Your task to perform on an android device: clear history in the chrome app Image 0: 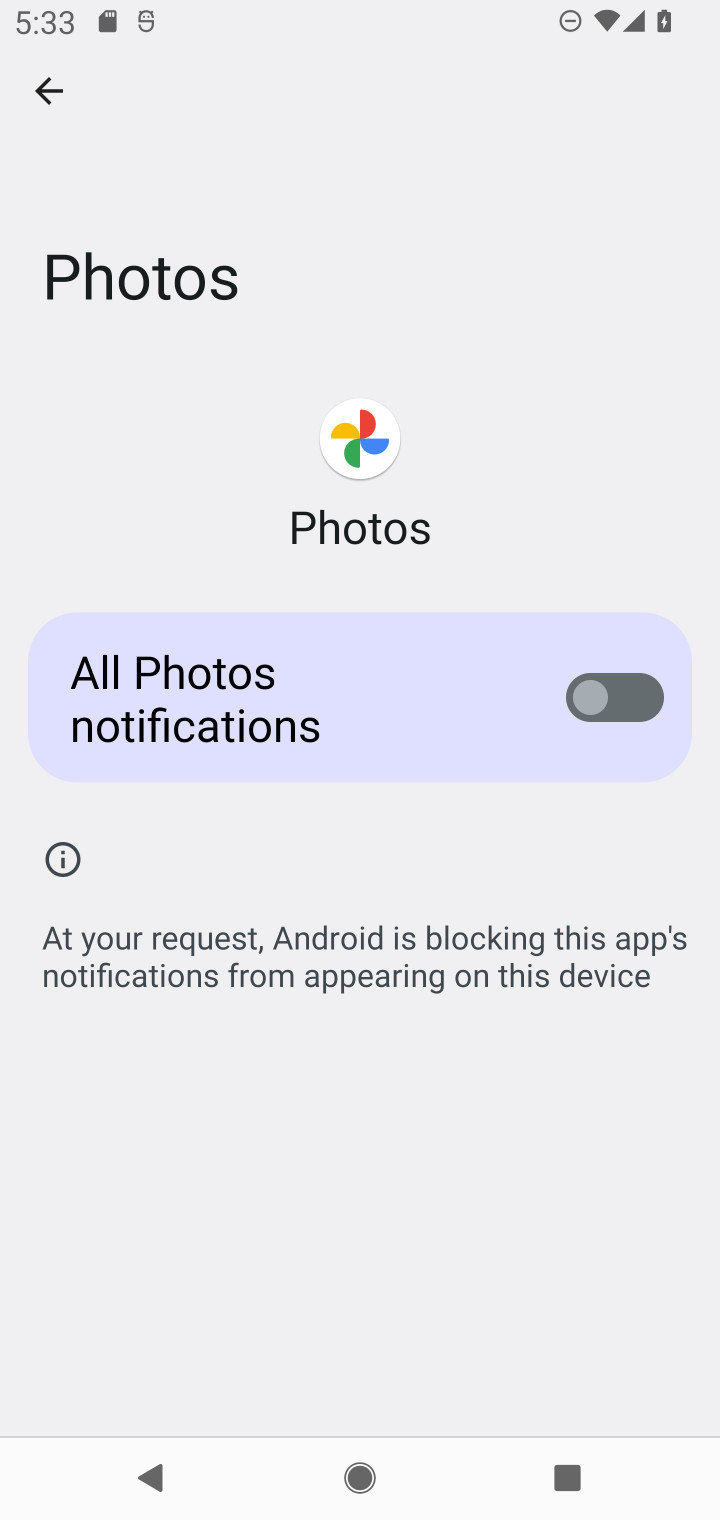
Step 0: press home button
Your task to perform on an android device: clear history in the chrome app Image 1: 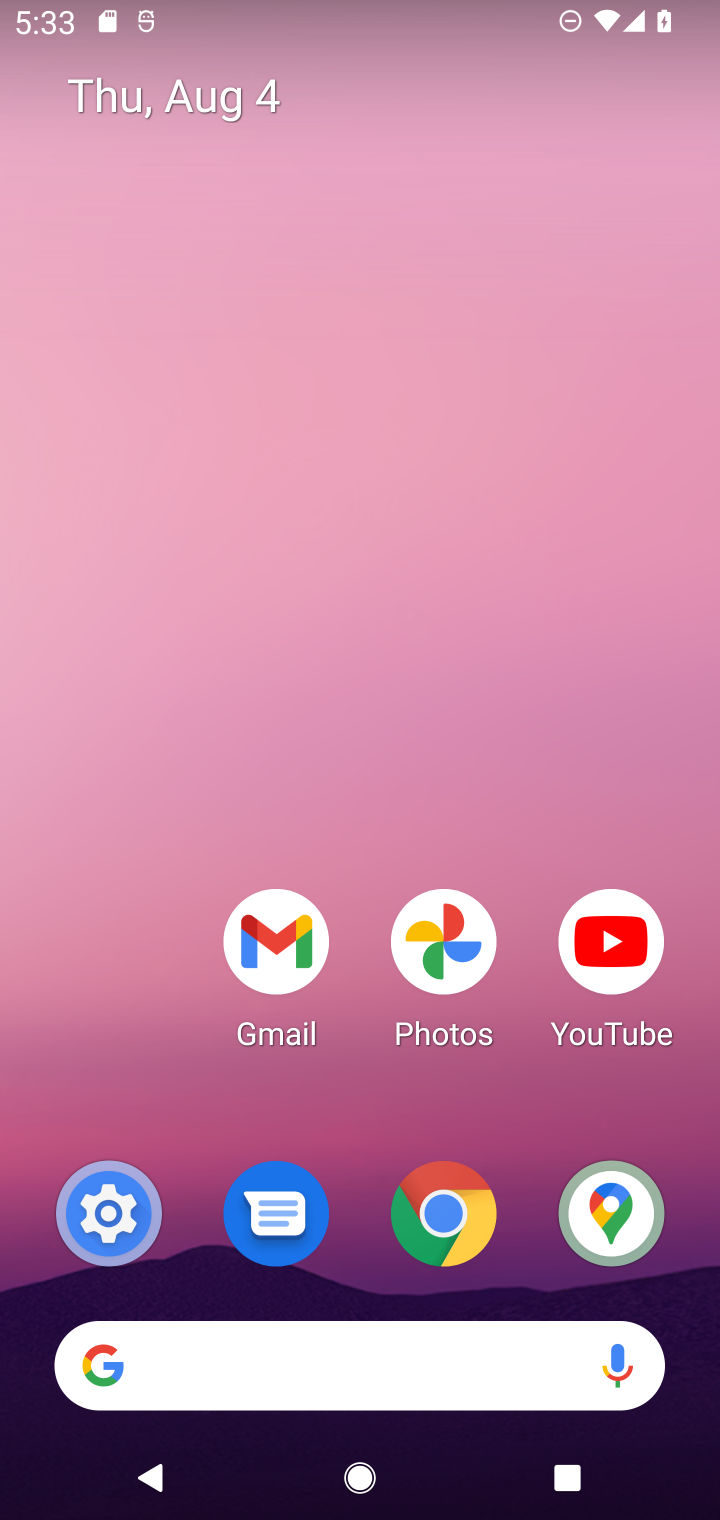
Step 1: drag from (153, 1077) to (173, 345)
Your task to perform on an android device: clear history in the chrome app Image 2: 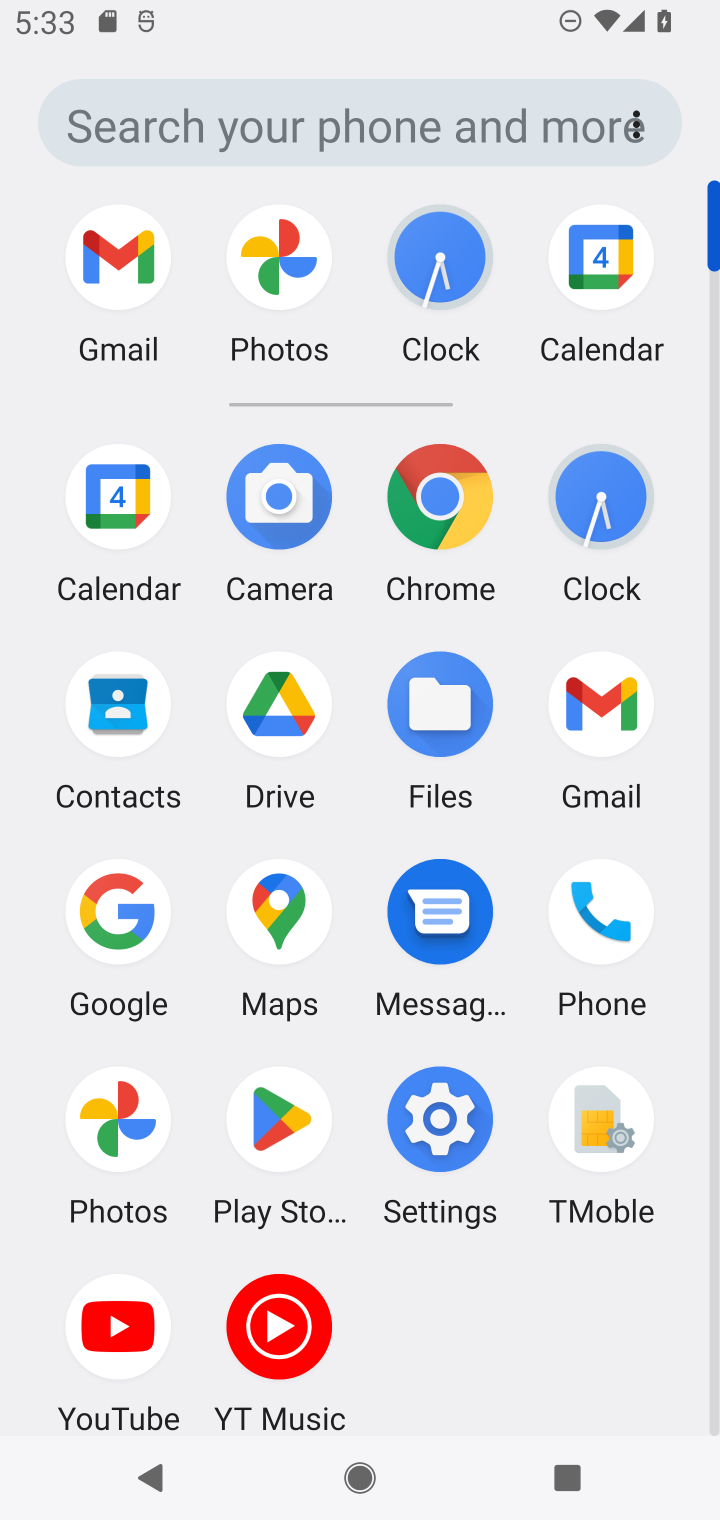
Step 2: click (435, 494)
Your task to perform on an android device: clear history in the chrome app Image 3: 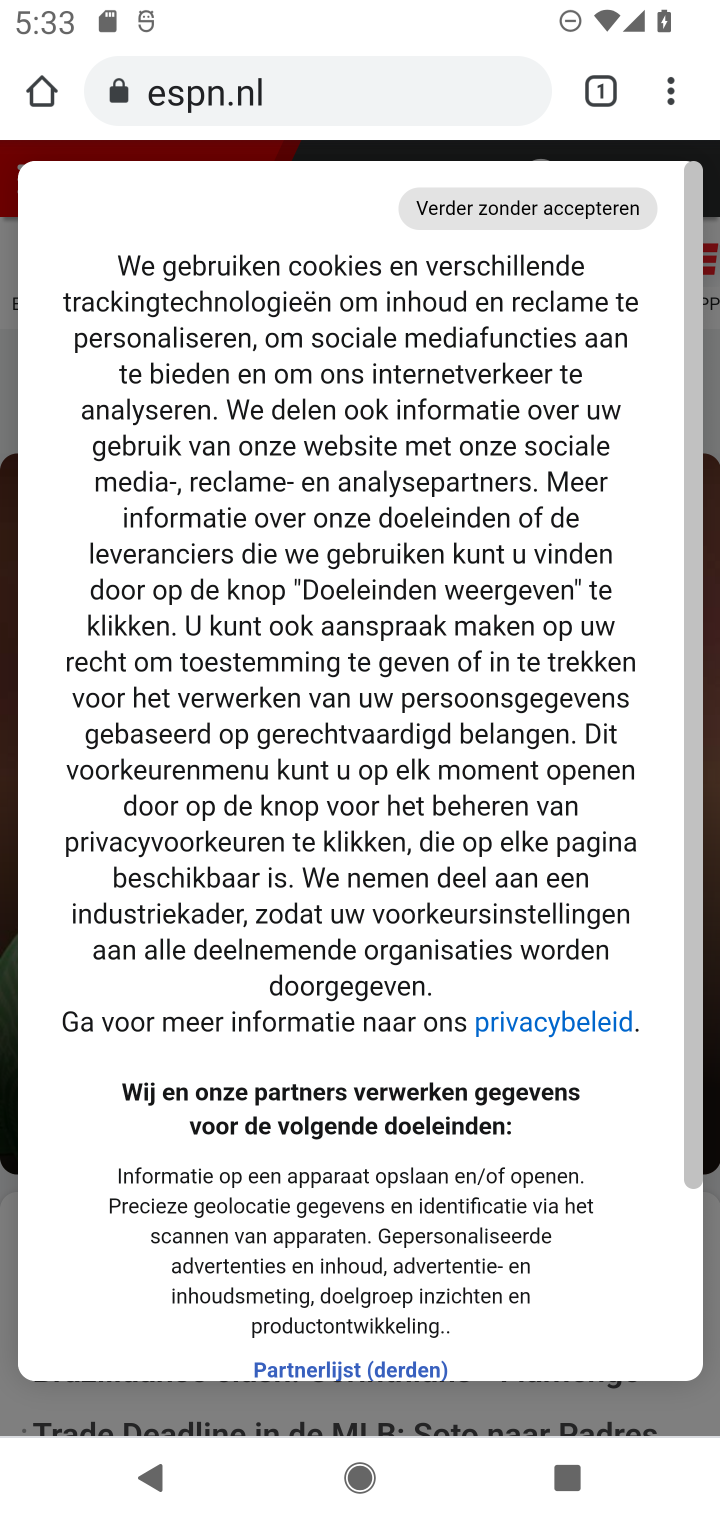
Step 3: click (670, 89)
Your task to perform on an android device: clear history in the chrome app Image 4: 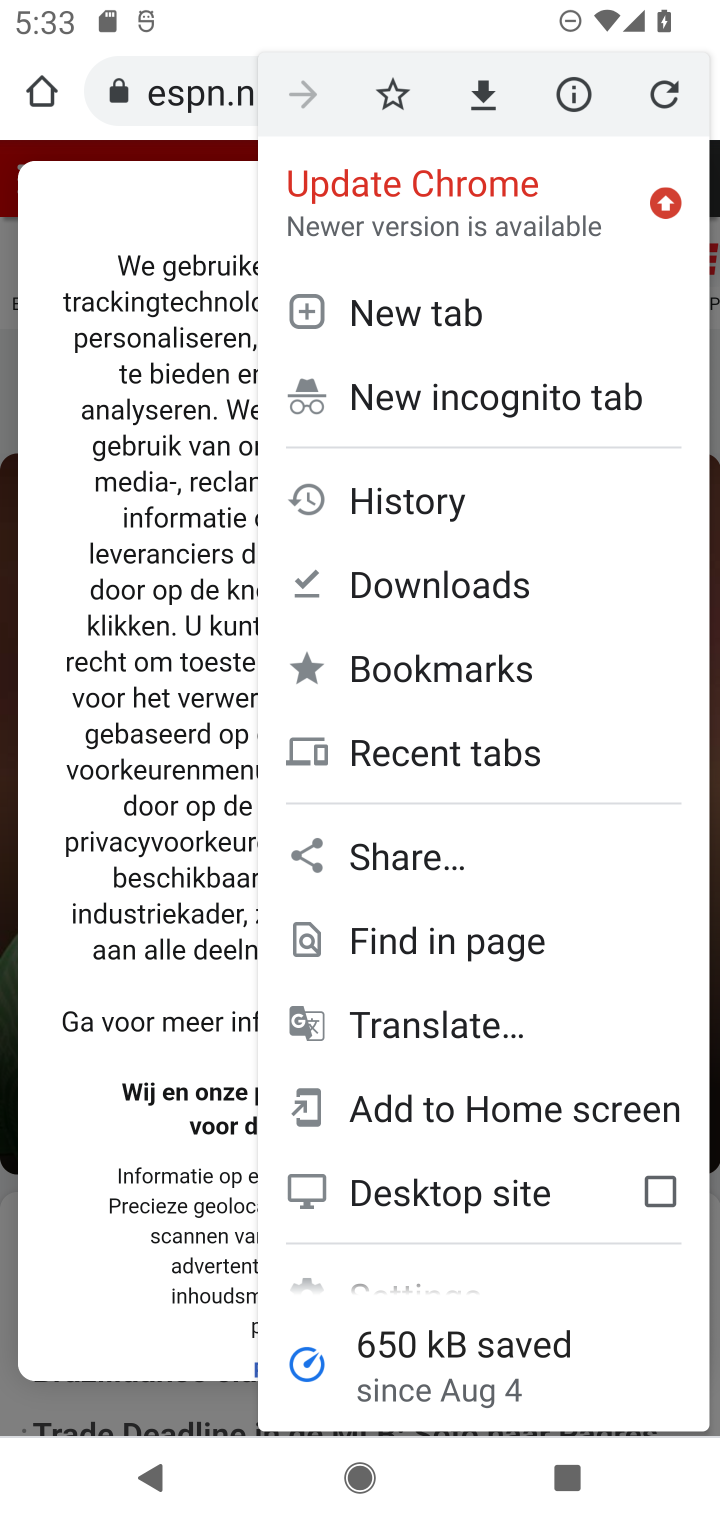
Step 4: drag from (544, 1185) to (550, 866)
Your task to perform on an android device: clear history in the chrome app Image 5: 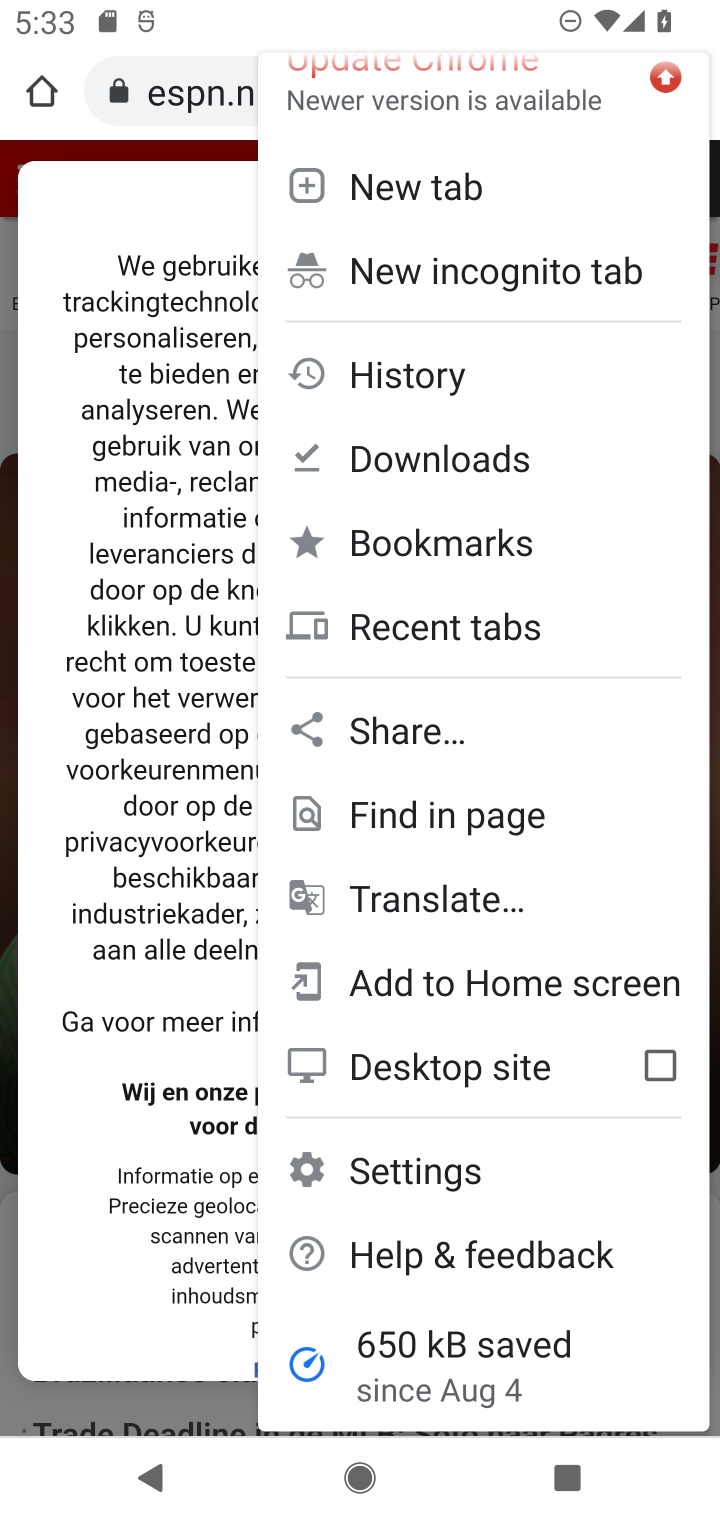
Step 5: click (519, 1157)
Your task to perform on an android device: clear history in the chrome app Image 6: 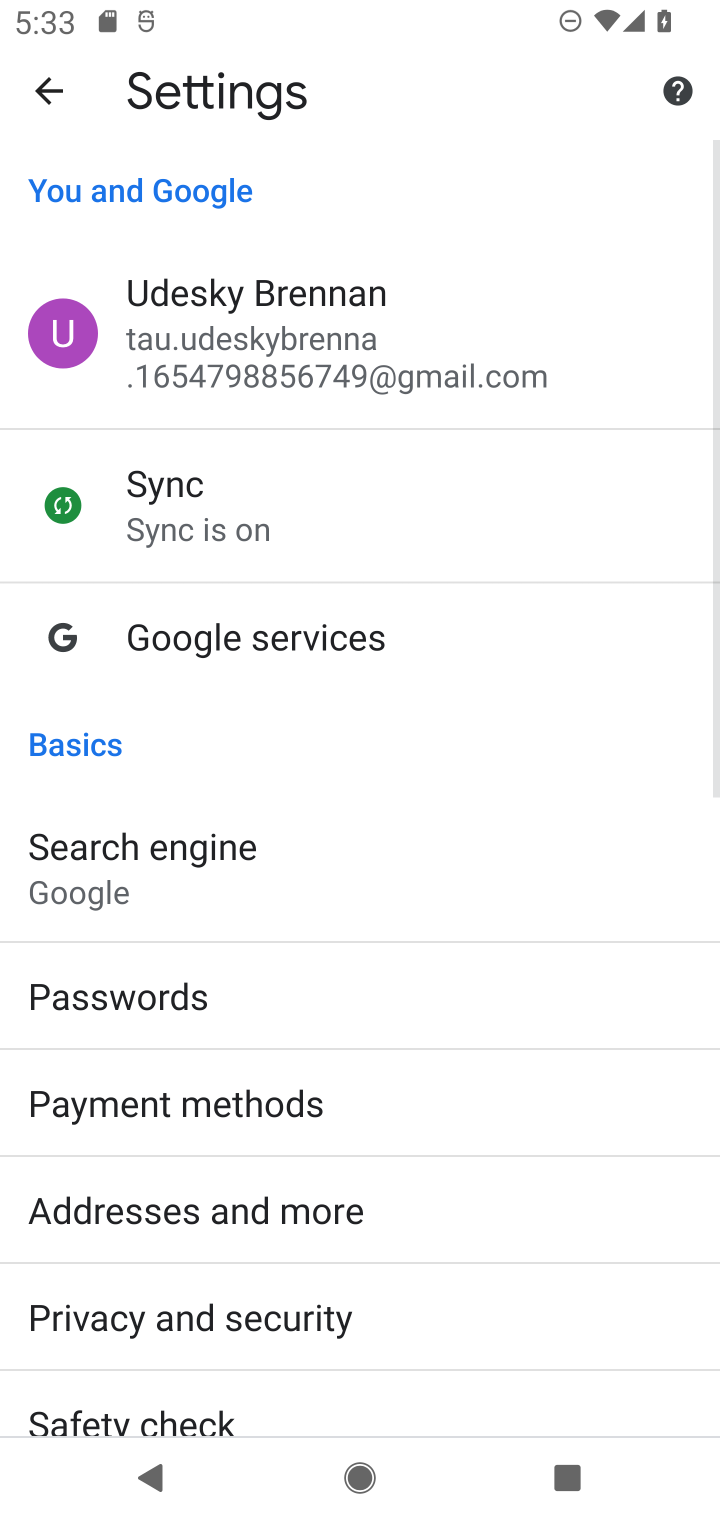
Step 6: drag from (535, 1242) to (574, 1001)
Your task to perform on an android device: clear history in the chrome app Image 7: 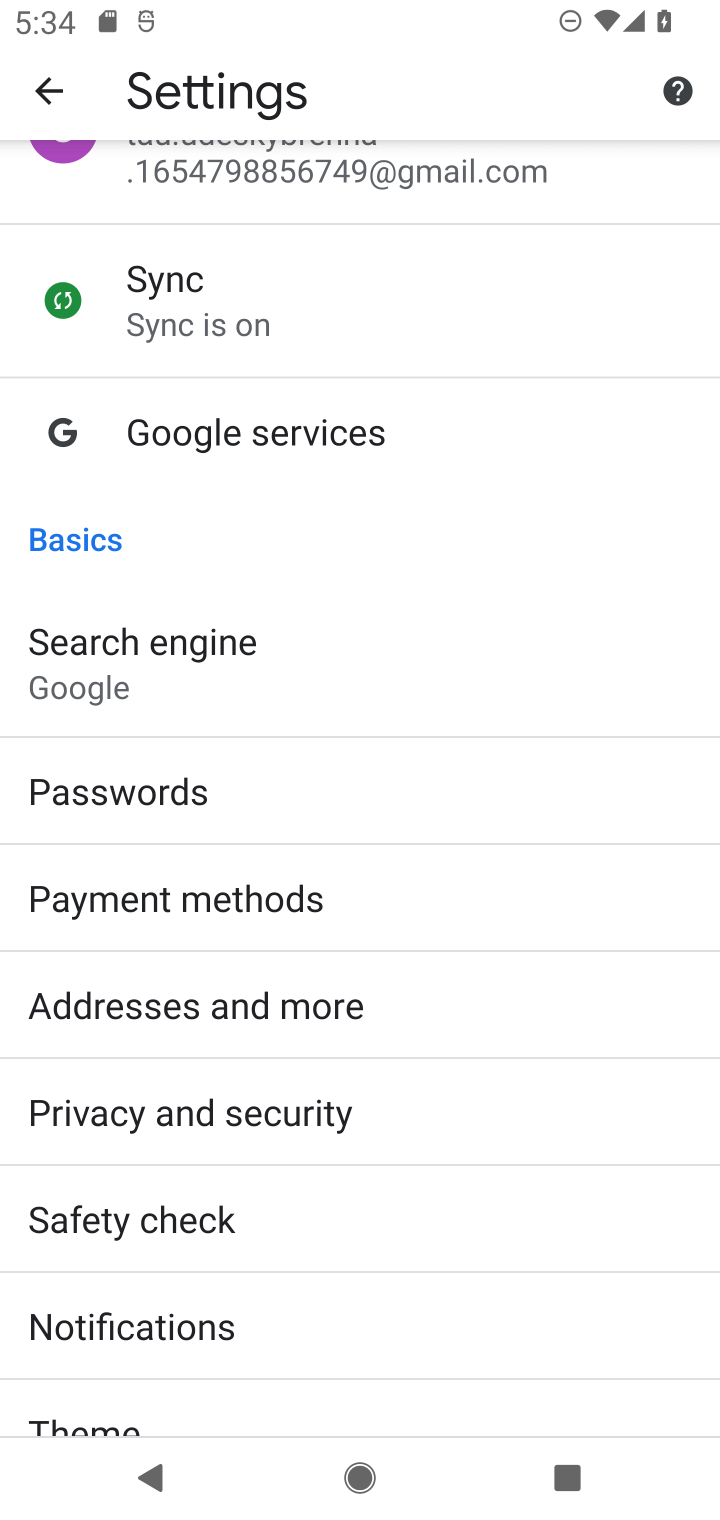
Step 7: click (578, 1098)
Your task to perform on an android device: clear history in the chrome app Image 8: 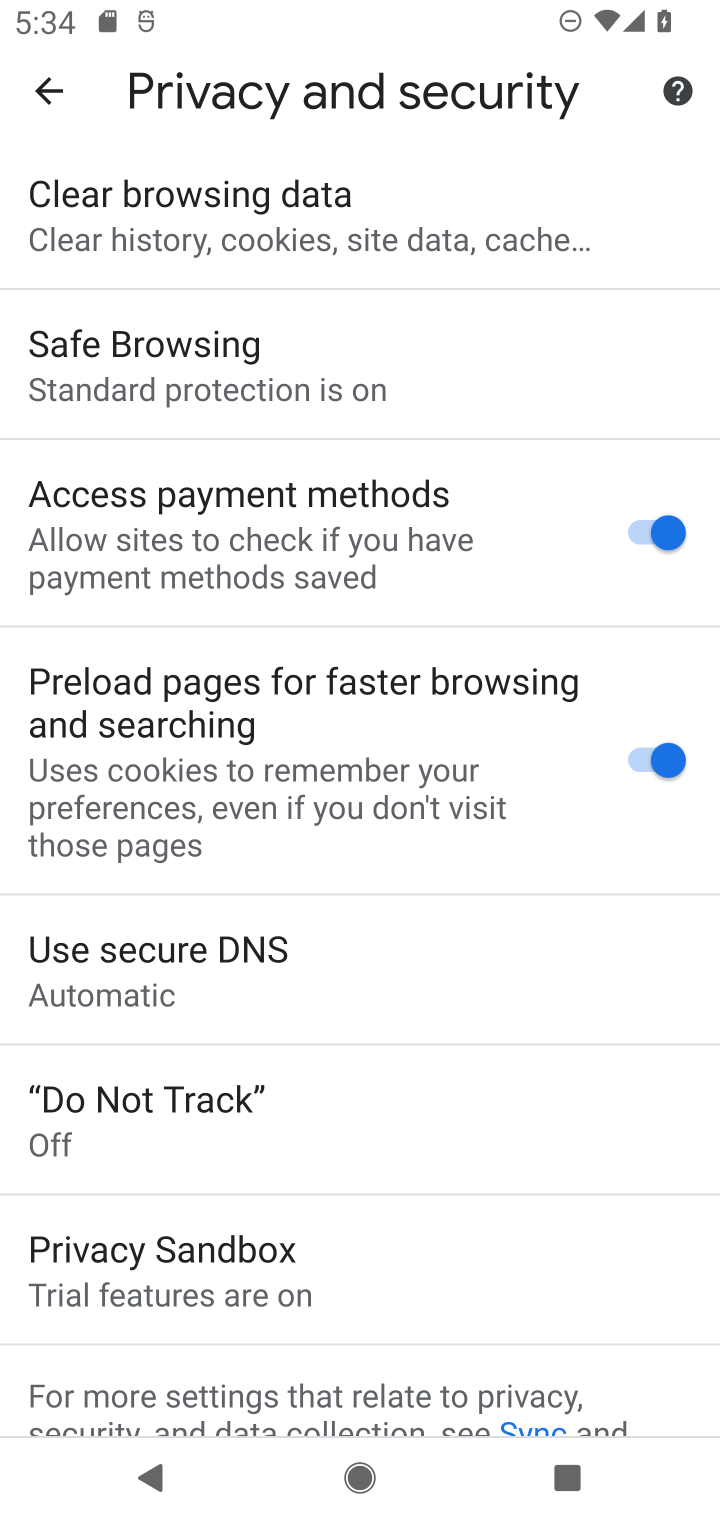
Step 8: click (336, 226)
Your task to perform on an android device: clear history in the chrome app Image 9: 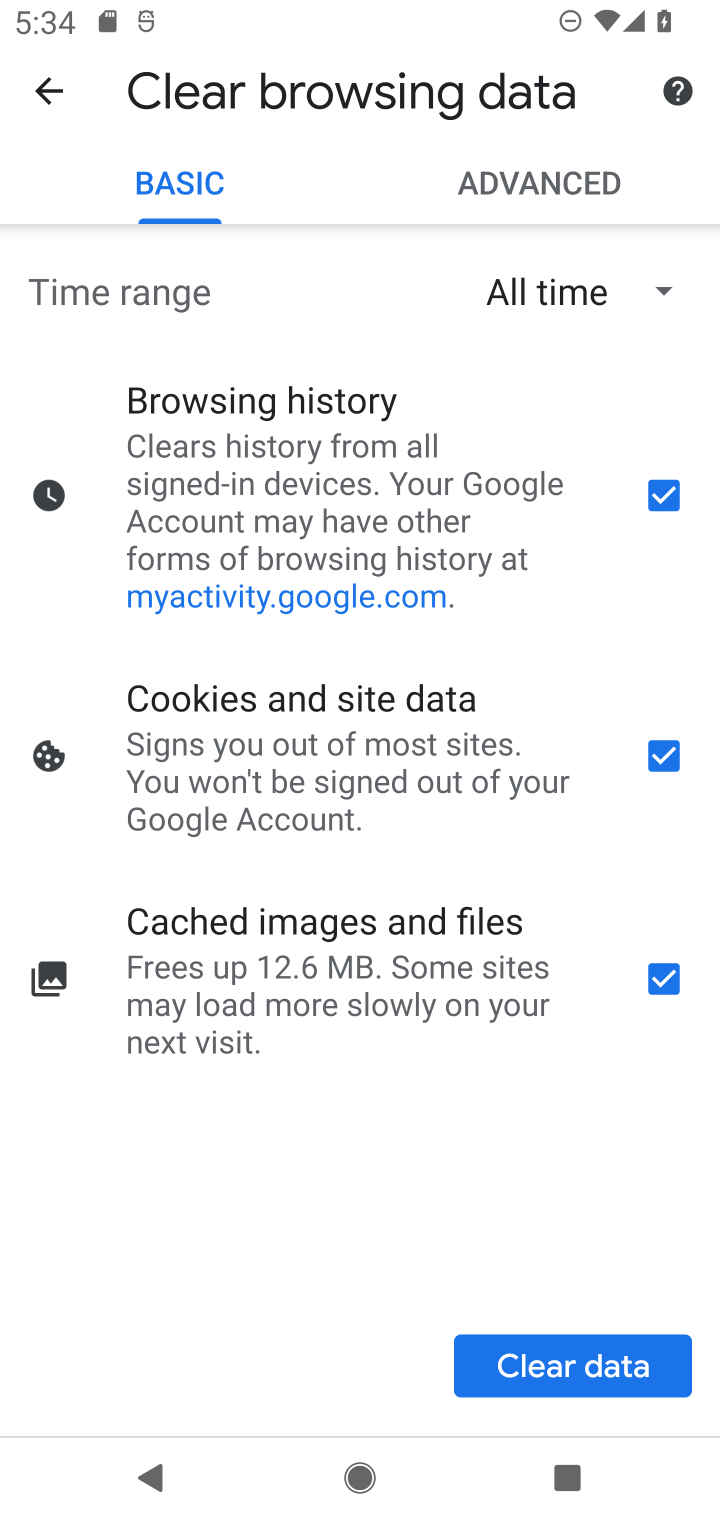
Step 9: click (519, 1369)
Your task to perform on an android device: clear history in the chrome app Image 10: 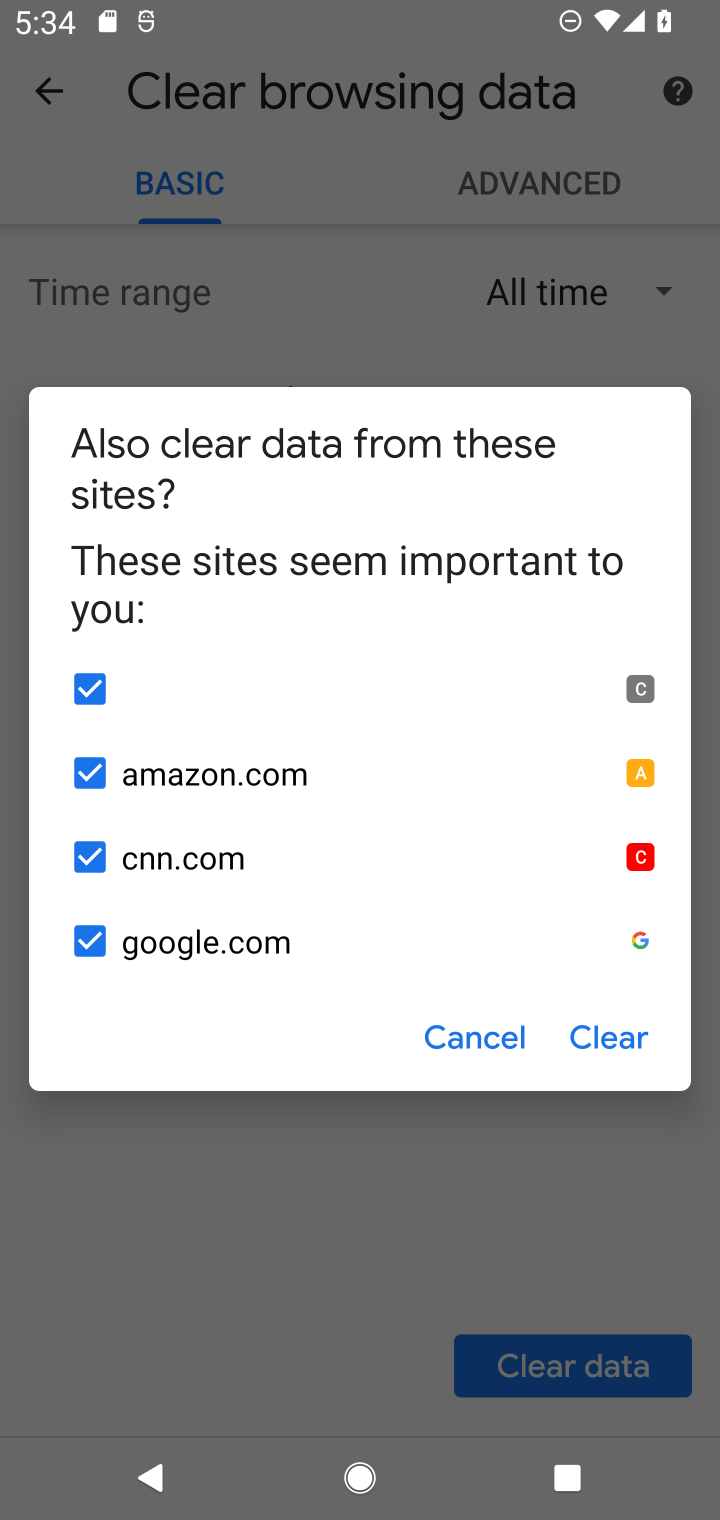
Step 10: click (612, 1042)
Your task to perform on an android device: clear history in the chrome app Image 11: 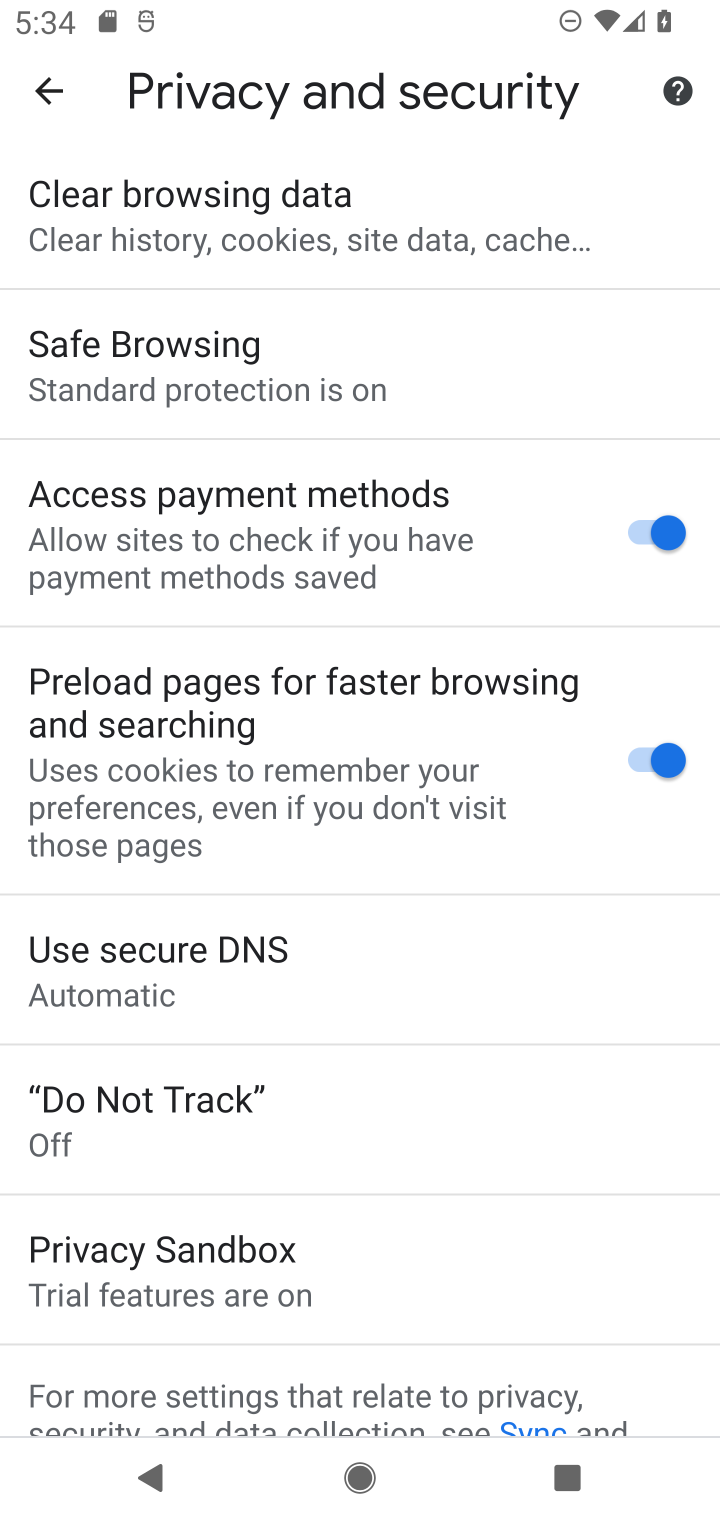
Step 11: task complete